Your task to perform on an android device: Open Google Maps and go to "Timeline" Image 0: 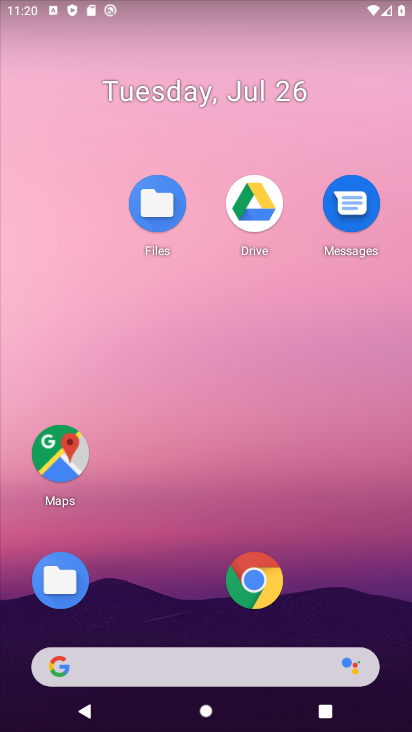
Step 0: click (71, 451)
Your task to perform on an android device: Open Google Maps and go to "Timeline" Image 1: 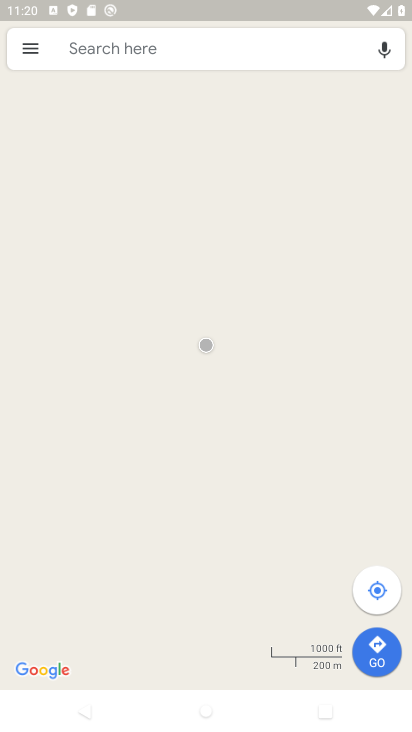
Step 1: click (27, 46)
Your task to perform on an android device: Open Google Maps and go to "Timeline" Image 2: 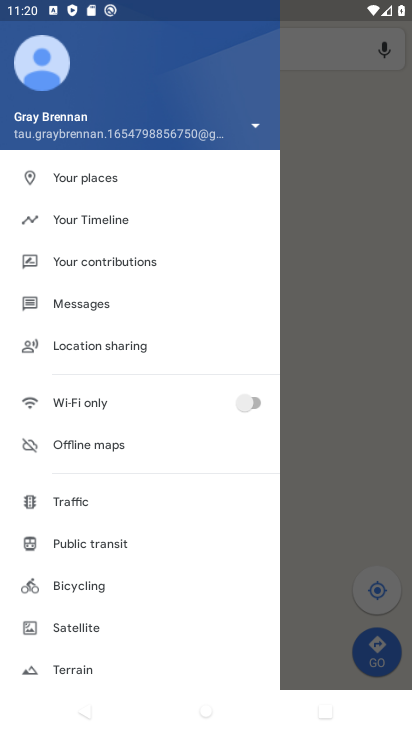
Step 2: click (96, 228)
Your task to perform on an android device: Open Google Maps and go to "Timeline" Image 3: 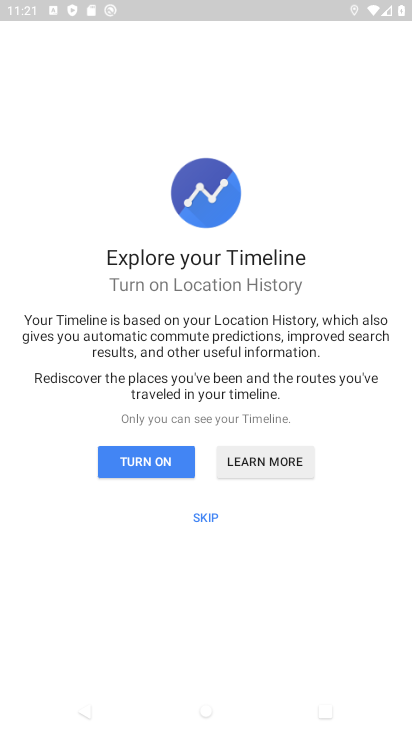
Step 3: click (169, 459)
Your task to perform on an android device: Open Google Maps and go to "Timeline" Image 4: 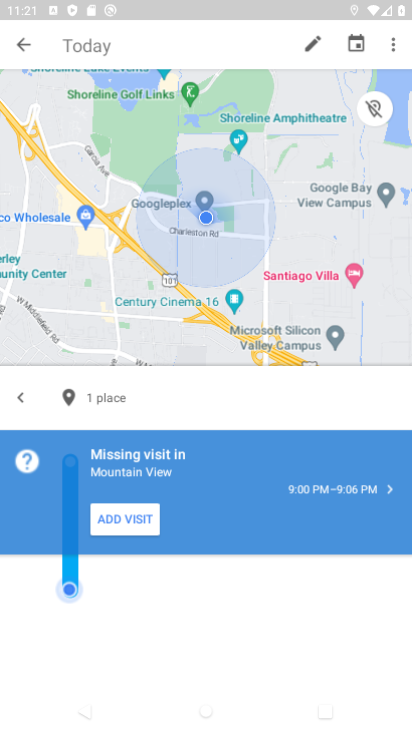
Step 4: task complete